Your task to perform on an android device: Go to Maps Image 0: 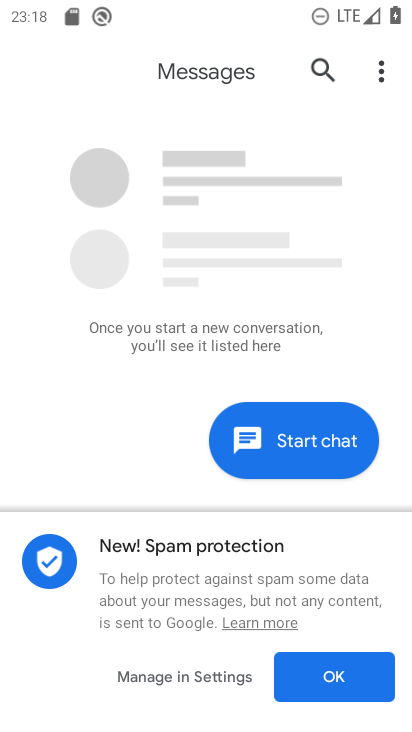
Step 0: press home button
Your task to perform on an android device: Go to Maps Image 1: 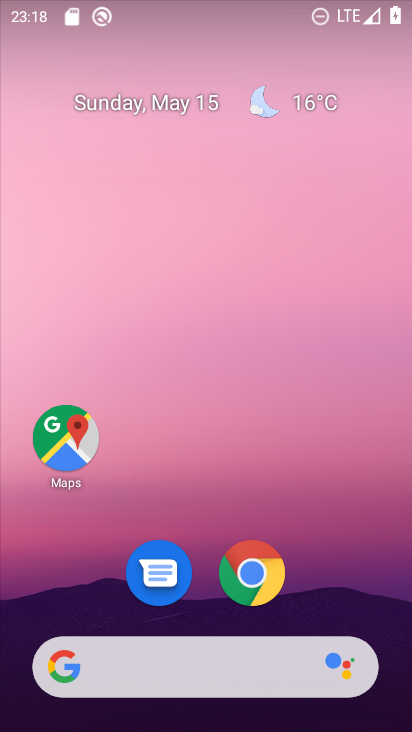
Step 1: click (72, 474)
Your task to perform on an android device: Go to Maps Image 2: 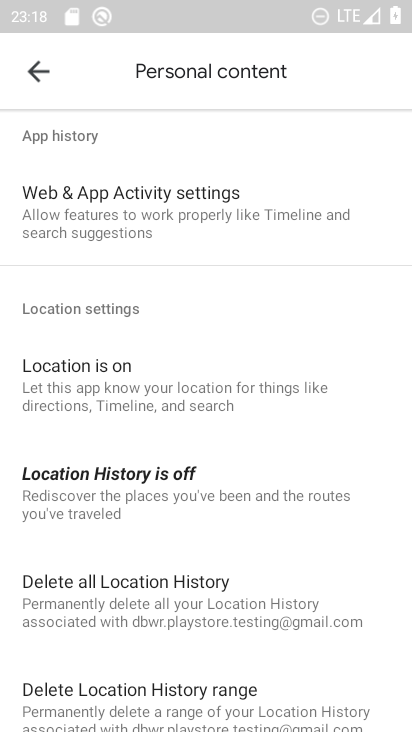
Step 2: task complete